Your task to perform on an android device: Go to ESPN.com Image 0: 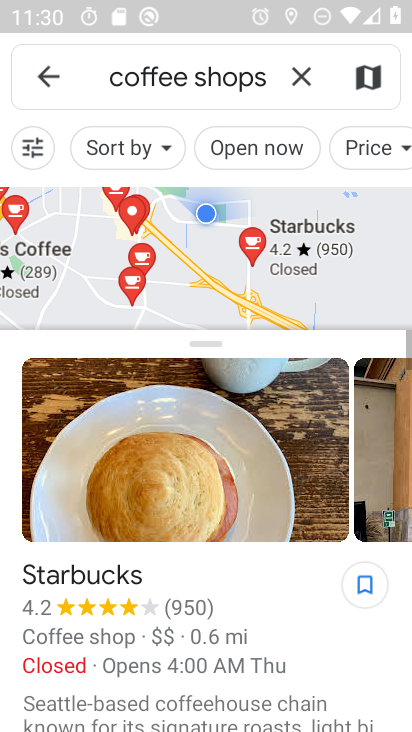
Step 0: press home button
Your task to perform on an android device: Go to ESPN.com Image 1: 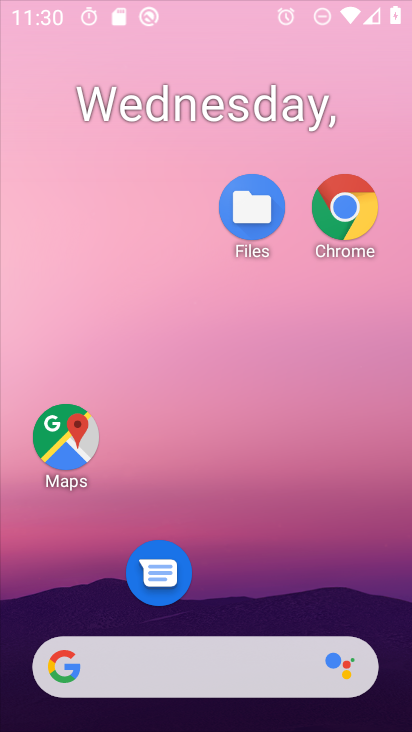
Step 1: drag from (176, 588) to (168, 220)
Your task to perform on an android device: Go to ESPN.com Image 2: 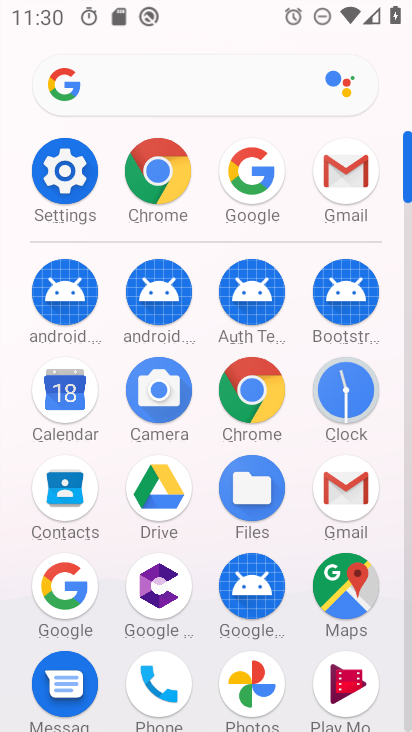
Step 2: click (143, 201)
Your task to perform on an android device: Go to ESPN.com Image 3: 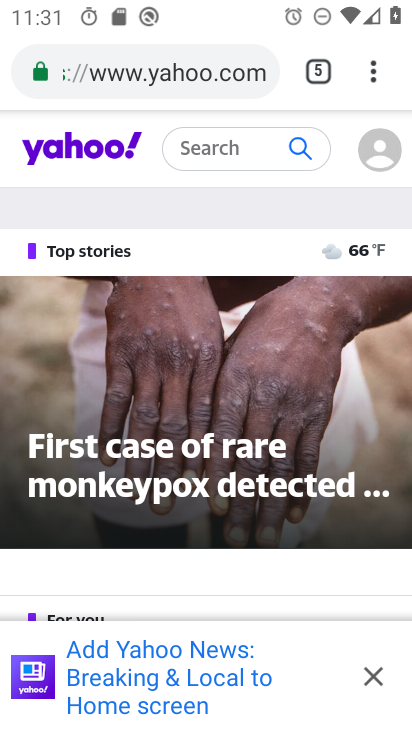
Step 3: click (222, 78)
Your task to perform on an android device: Go to ESPN.com Image 4: 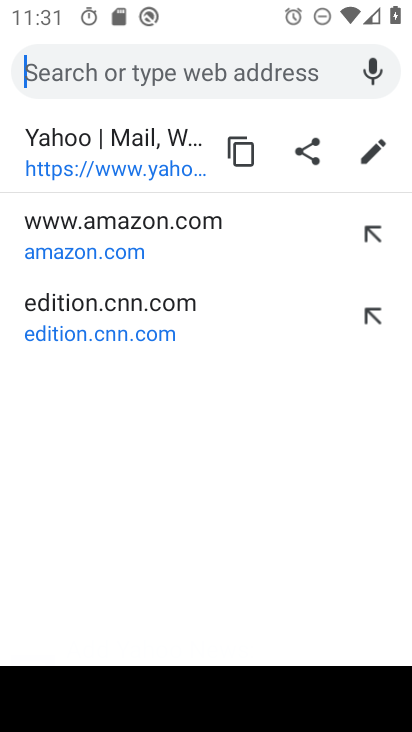
Step 4: type "espn"
Your task to perform on an android device: Go to ESPN.com Image 5: 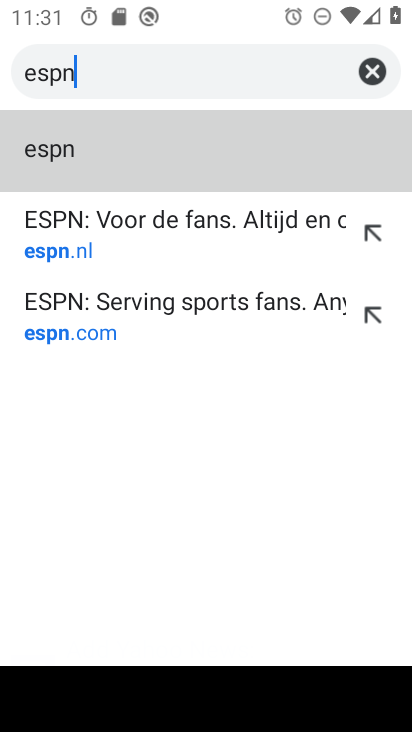
Step 5: click (144, 325)
Your task to perform on an android device: Go to ESPN.com Image 6: 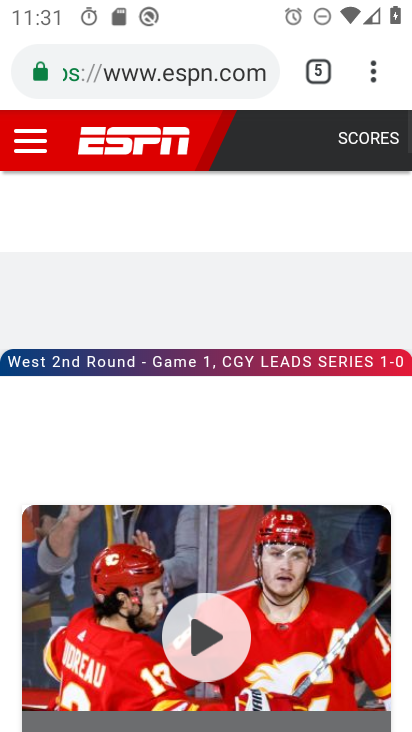
Step 6: task complete